Your task to perform on an android device: Open privacy settings Image 0: 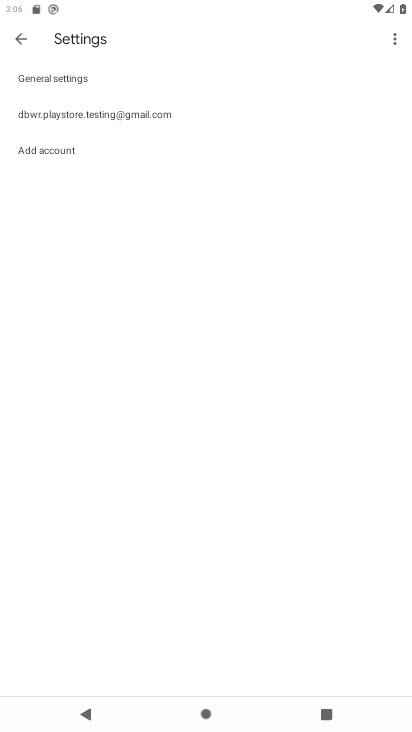
Step 0: press home button
Your task to perform on an android device: Open privacy settings Image 1: 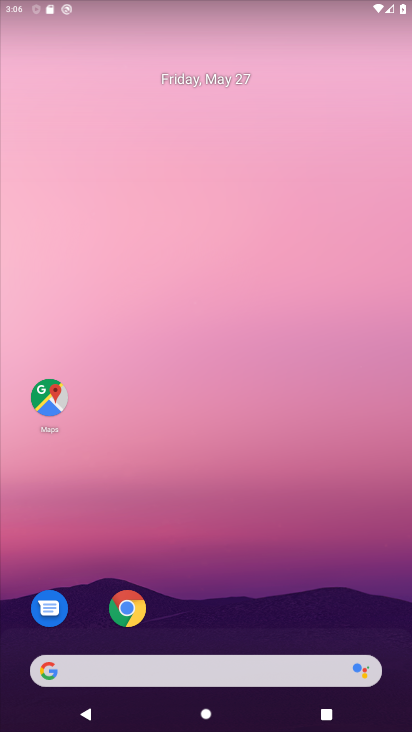
Step 1: drag from (195, 609) to (226, 190)
Your task to perform on an android device: Open privacy settings Image 2: 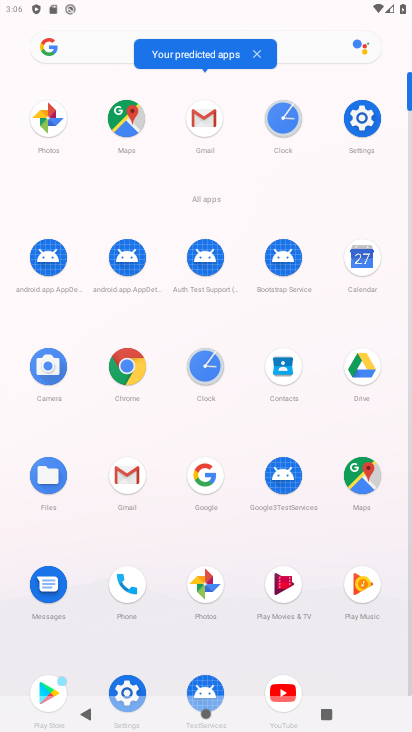
Step 2: click (368, 115)
Your task to perform on an android device: Open privacy settings Image 3: 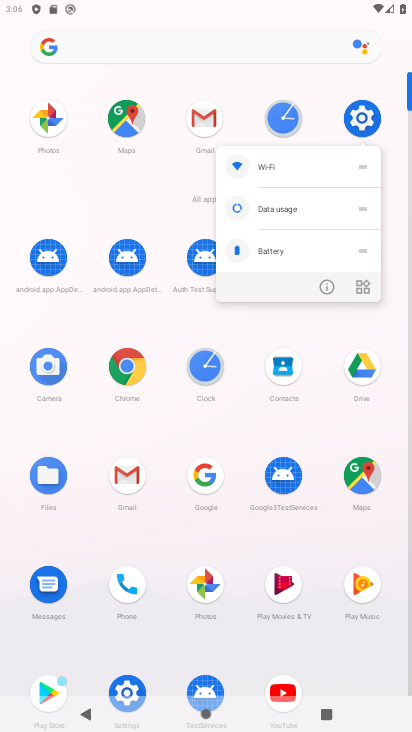
Step 3: click (373, 130)
Your task to perform on an android device: Open privacy settings Image 4: 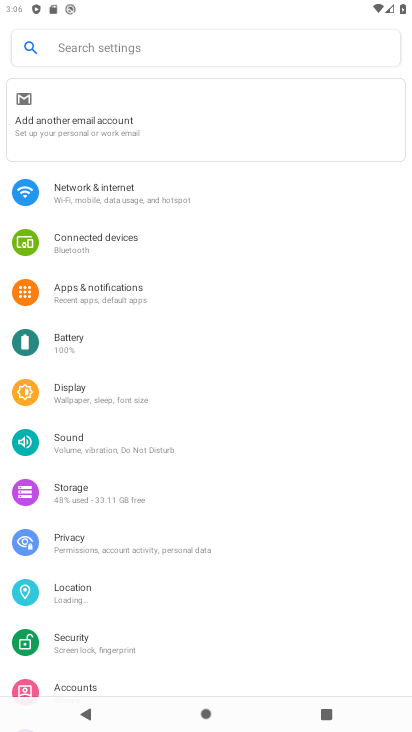
Step 4: click (75, 545)
Your task to perform on an android device: Open privacy settings Image 5: 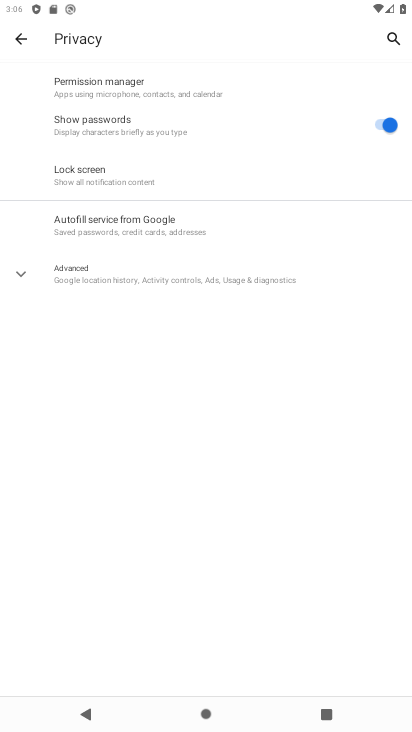
Step 5: click (108, 267)
Your task to perform on an android device: Open privacy settings Image 6: 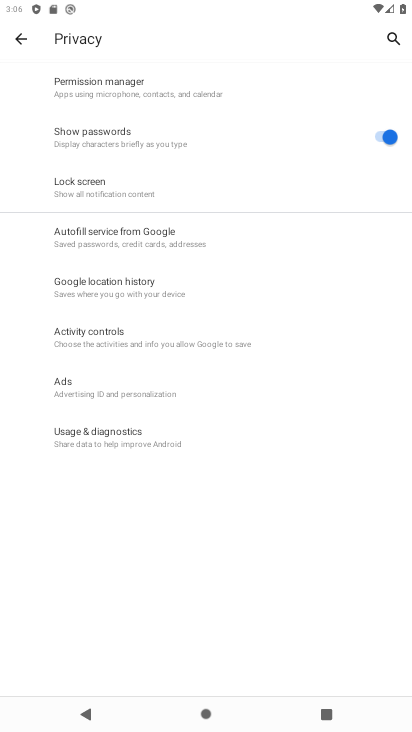
Step 6: task complete